Your task to perform on an android device: turn off smart reply in the gmail app Image 0: 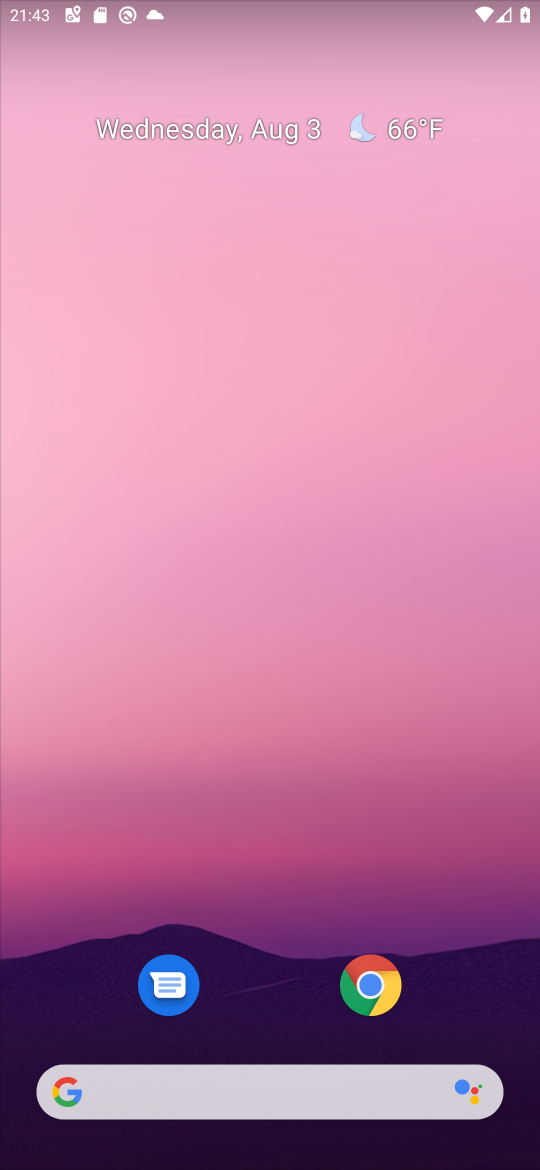
Step 0: drag from (290, 937) to (305, 195)
Your task to perform on an android device: turn off smart reply in the gmail app Image 1: 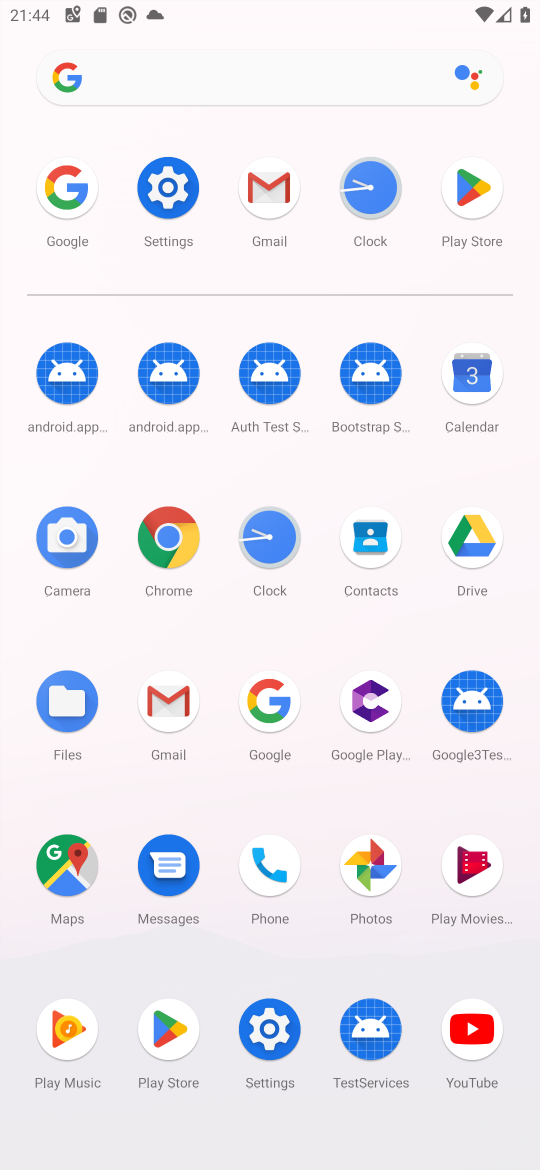
Step 1: click (280, 196)
Your task to perform on an android device: turn off smart reply in the gmail app Image 2: 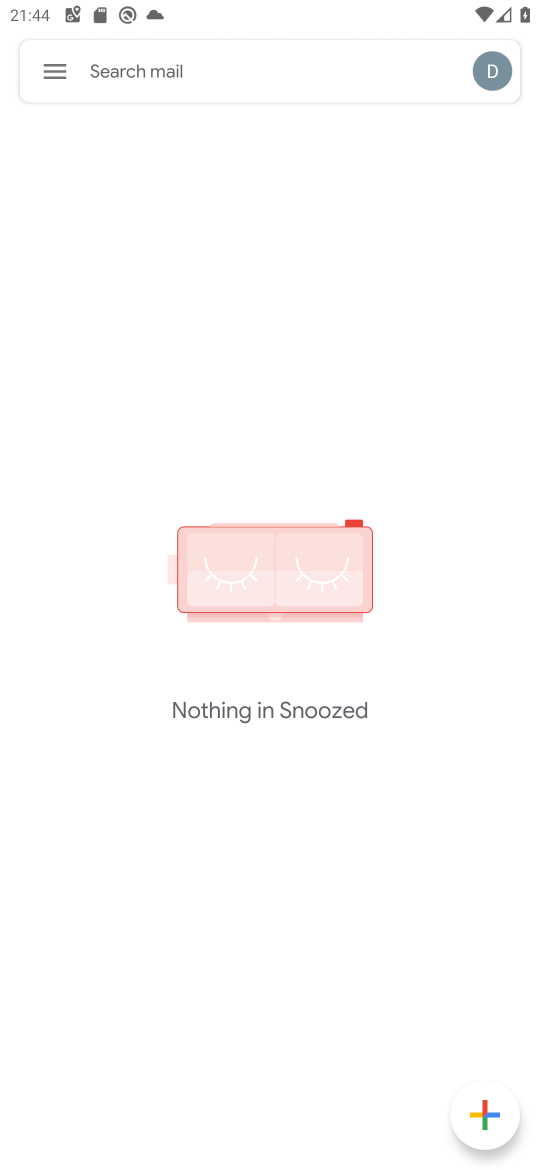
Step 2: click (44, 89)
Your task to perform on an android device: turn off smart reply in the gmail app Image 3: 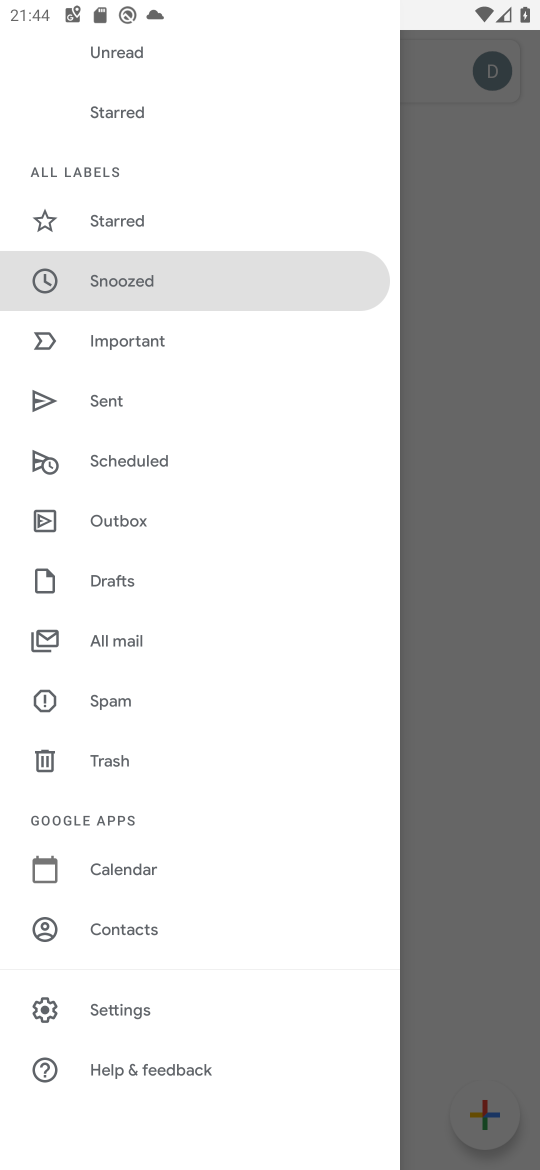
Step 3: click (198, 1012)
Your task to perform on an android device: turn off smart reply in the gmail app Image 4: 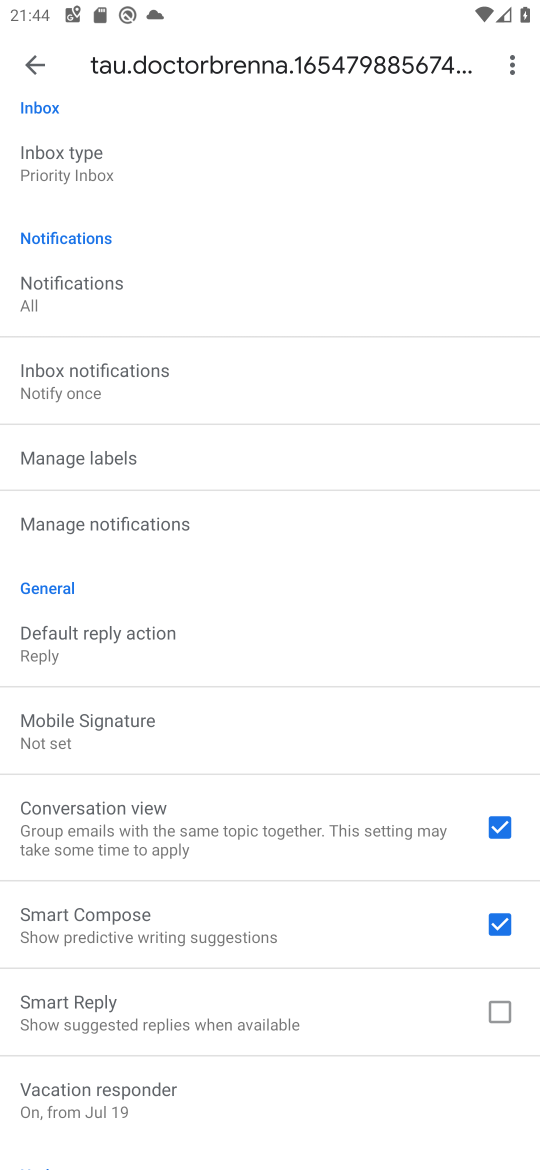
Step 4: task complete